Your task to perform on an android device: see tabs open on other devices in the chrome app Image 0: 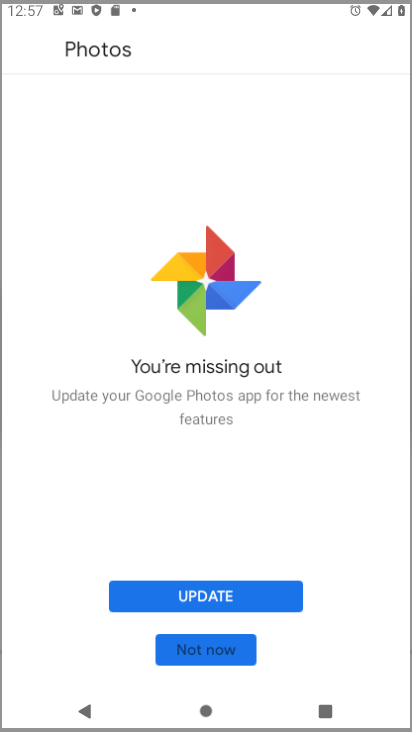
Step 0: press home button
Your task to perform on an android device: see tabs open on other devices in the chrome app Image 1: 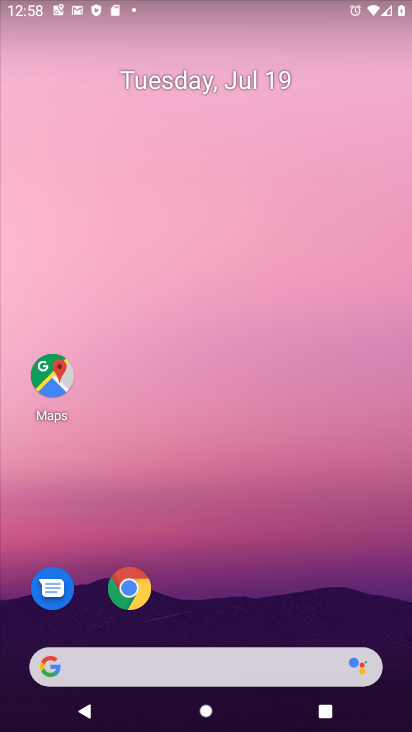
Step 1: drag from (310, 647) to (232, 37)
Your task to perform on an android device: see tabs open on other devices in the chrome app Image 2: 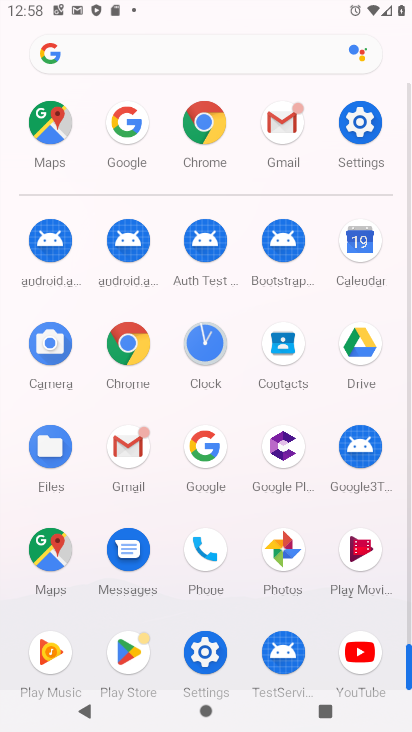
Step 2: click (125, 358)
Your task to perform on an android device: see tabs open on other devices in the chrome app Image 3: 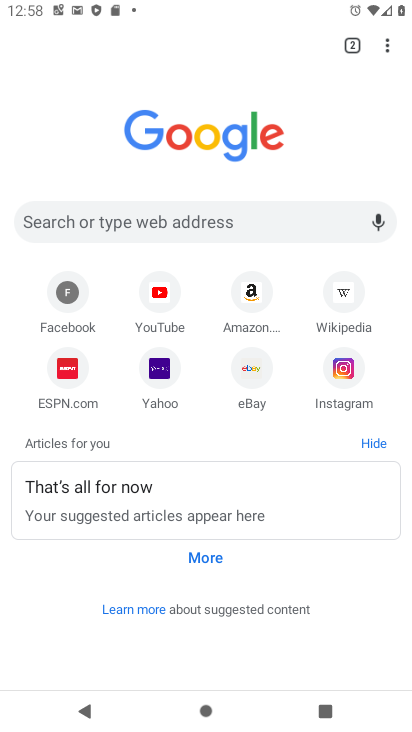
Step 3: task complete